Your task to perform on an android device: set the stopwatch Image 0: 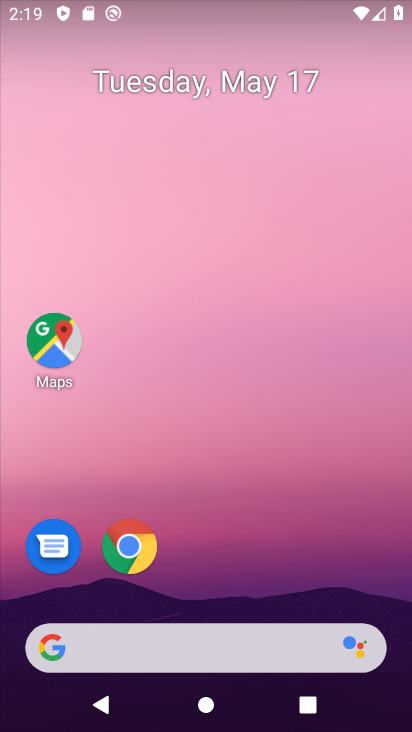
Step 0: drag from (244, 571) to (293, 57)
Your task to perform on an android device: set the stopwatch Image 1: 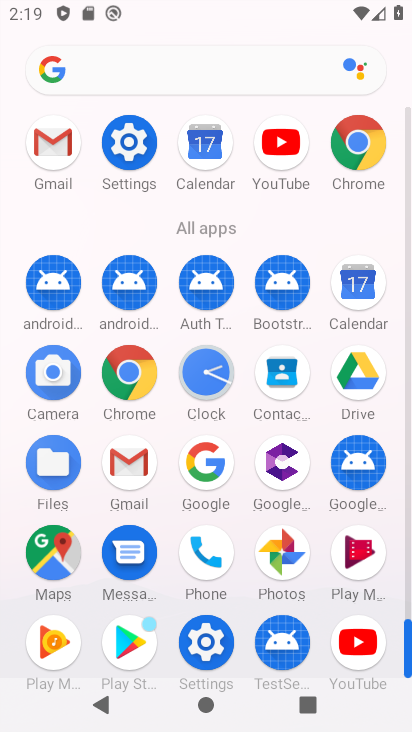
Step 1: click (212, 373)
Your task to perform on an android device: set the stopwatch Image 2: 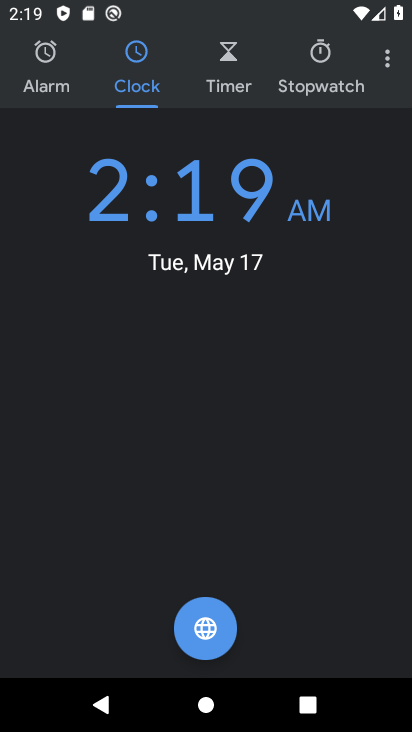
Step 2: click (330, 101)
Your task to perform on an android device: set the stopwatch Image 3: 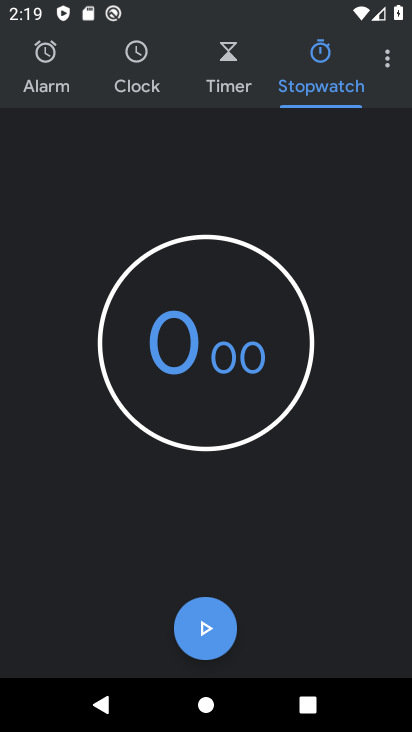
Step 3: click (224, 645)
Your task to perform on an android device: set the stopwatch Image 4: 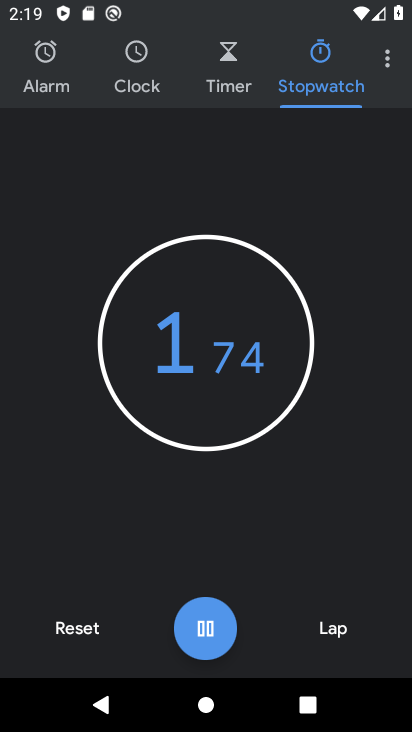
Step 4: task complete